Your task to perform on an android device: What's on my calendar today? Image 0: 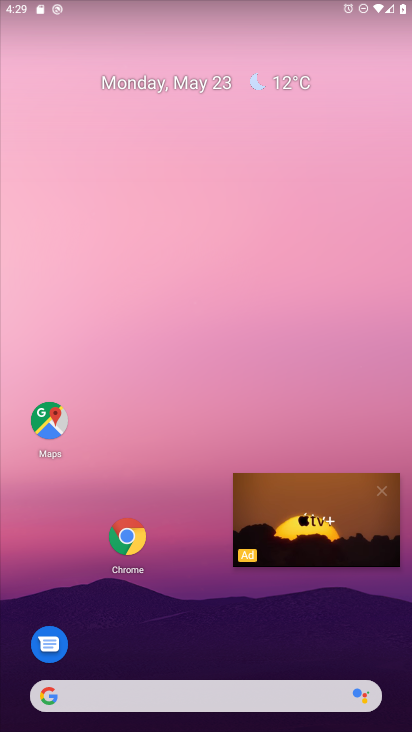
Step 0: click (379, 490)
Your task to perform on an android device: What's on my calendar today? Image 1: 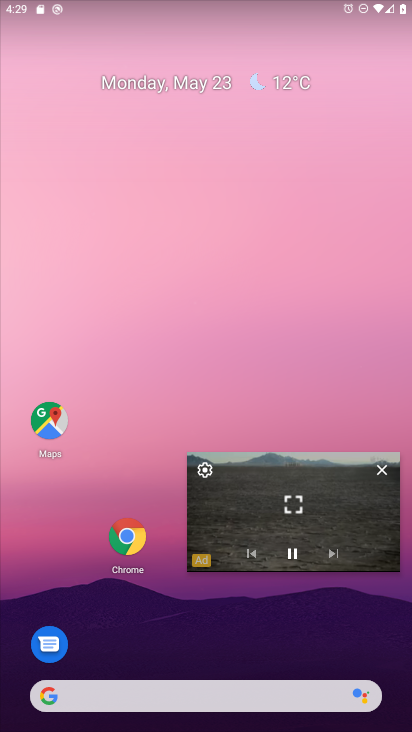
Step 1: click (383, 473)
Your task to perform on an android device: What's on my calendar today? Image 2: 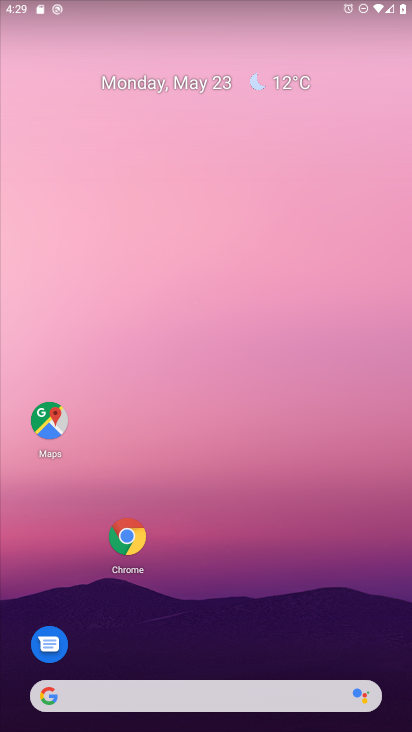
Step 2: drag from (284, 583) to (252, 89)
Your task to perform on an android device: What's on my calendar today? Image 3: 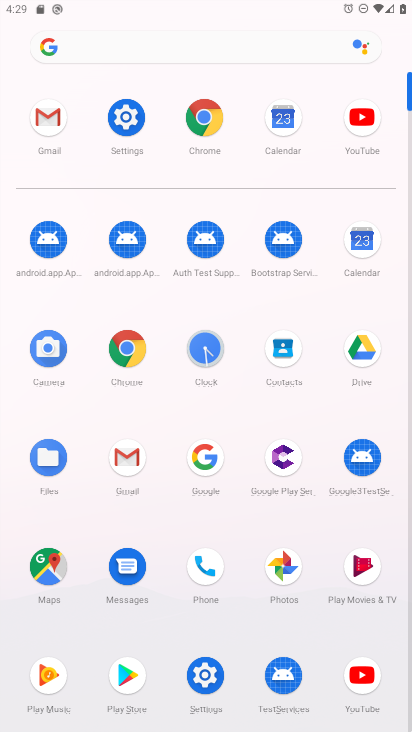
Step 3: click (358, 238)
Your task to perform on an android device: What's on my calendar today? Image 4: 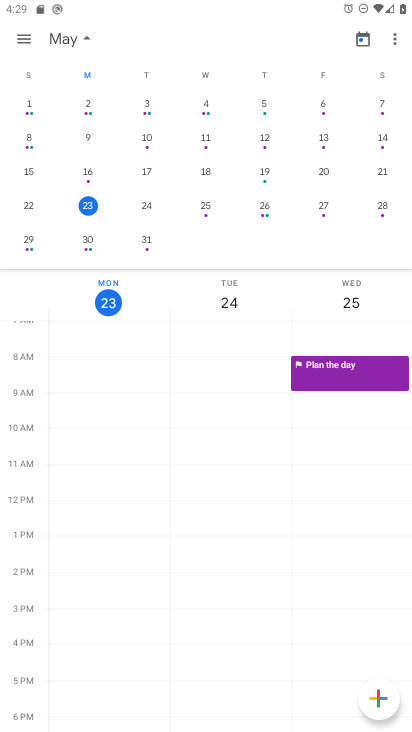
Step 4: click (86, 202)
Your task to perform on an android device: What's on my calendar today? Image 5: 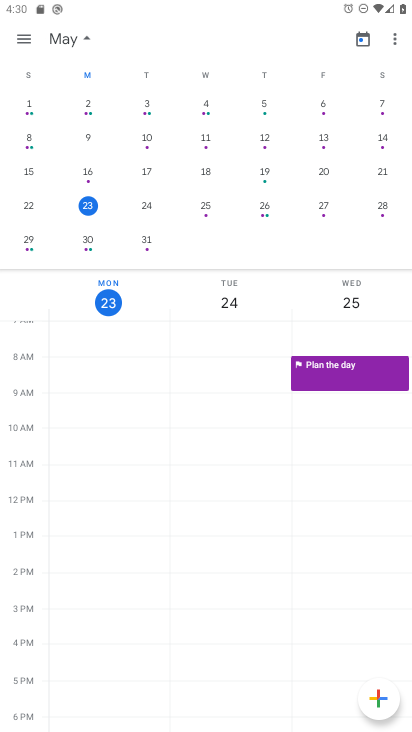
Step 5: click (102, 296)
Your task to perform on an android device: What's on my calendar today? Image 6: 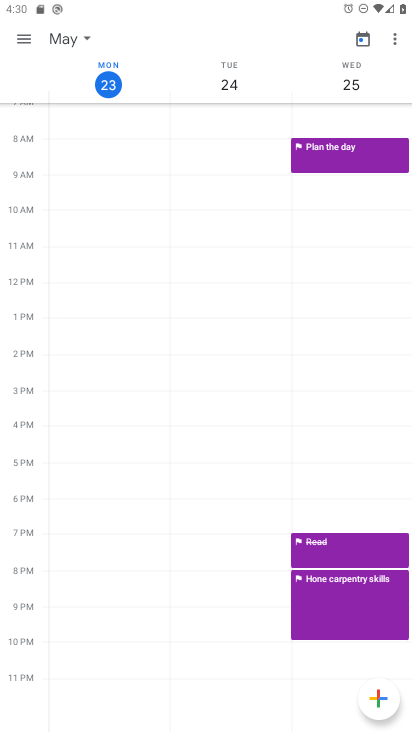
Step 6: task complete